Your task to perform on an android device: toggle translation in the chrome app Image 0: 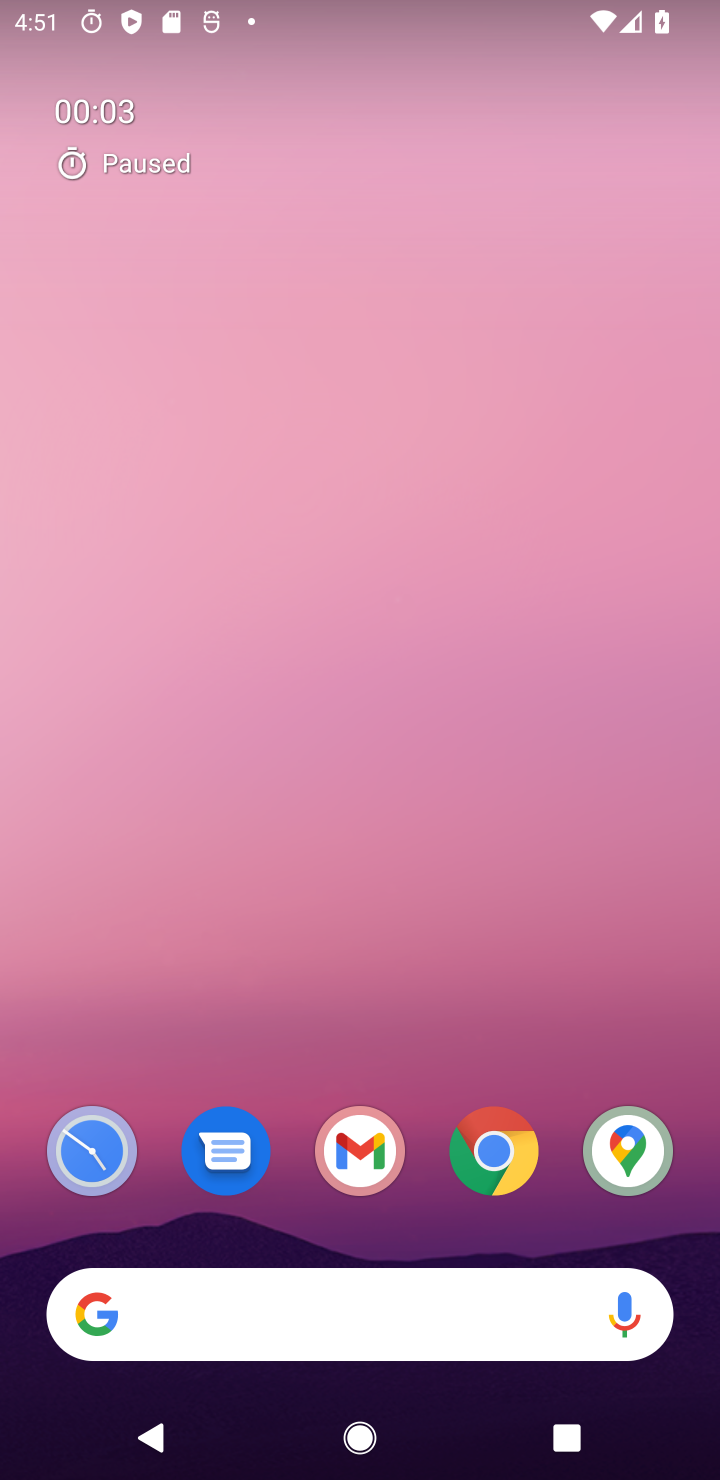
Step 0: drag from (474, 1149) to (454, 601)
Your task to perform on an android device: toggle translation in the chrome app Image 1: 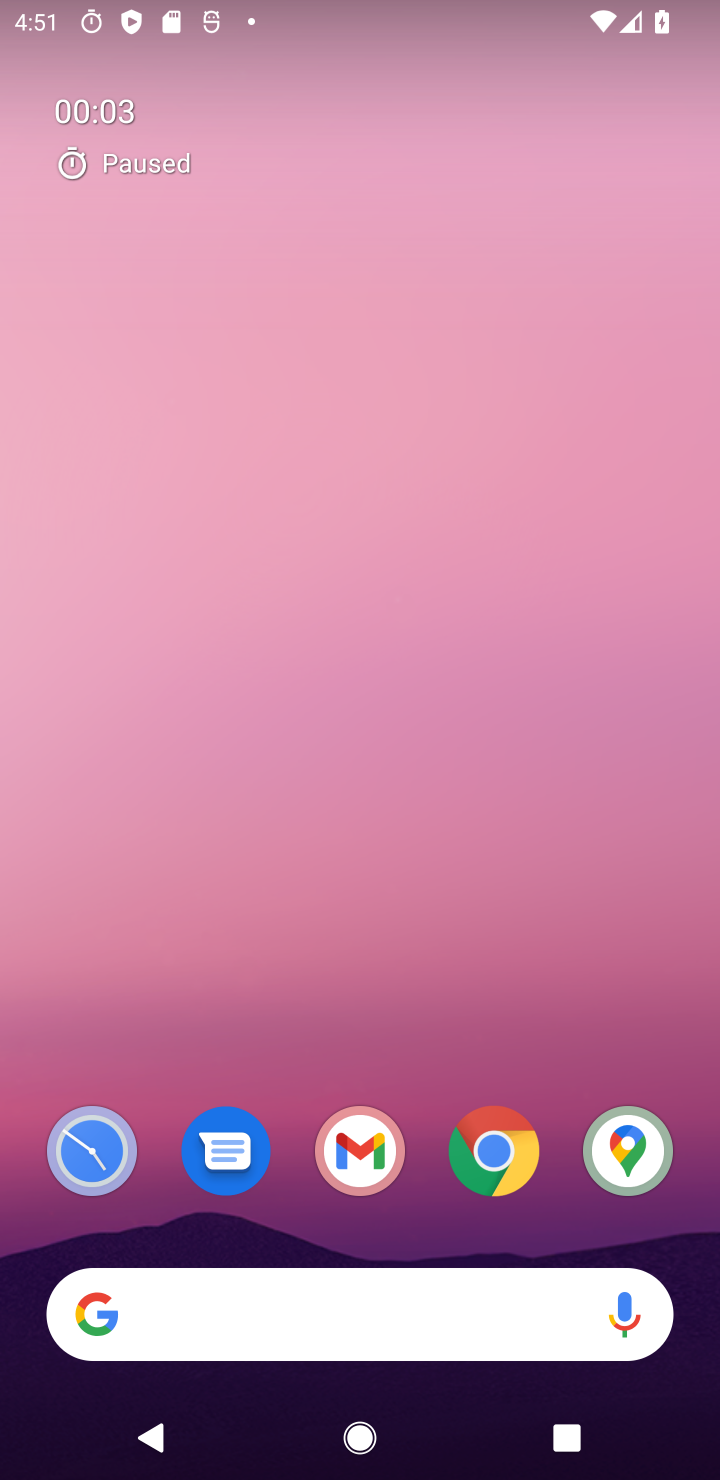
Step 1: click (266, 425)
Your task to perform on an android device: toggle translation in the chrome app Image 2: 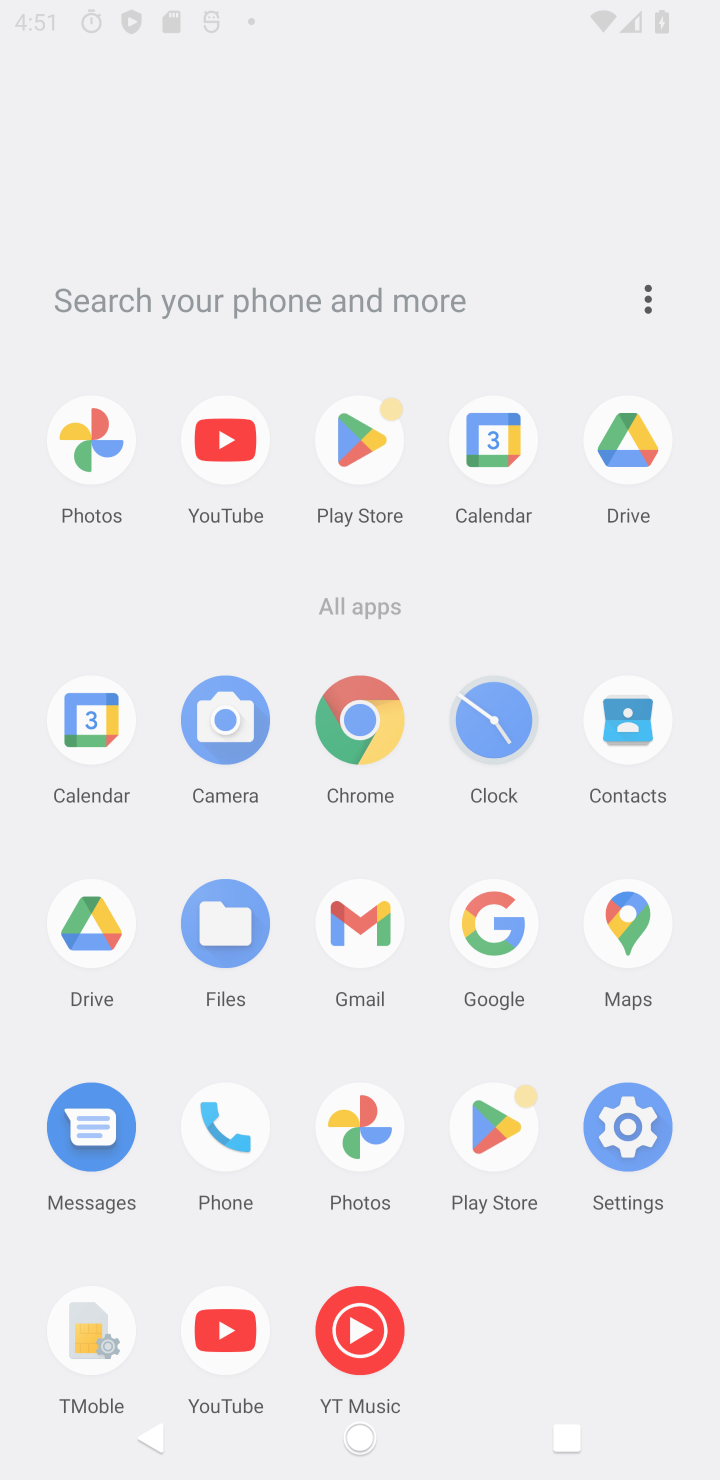
Step 2: drag from (352, 722) to (263, 305)
Your task to perform on an android device: toggle translation in the chrome app Image 3: 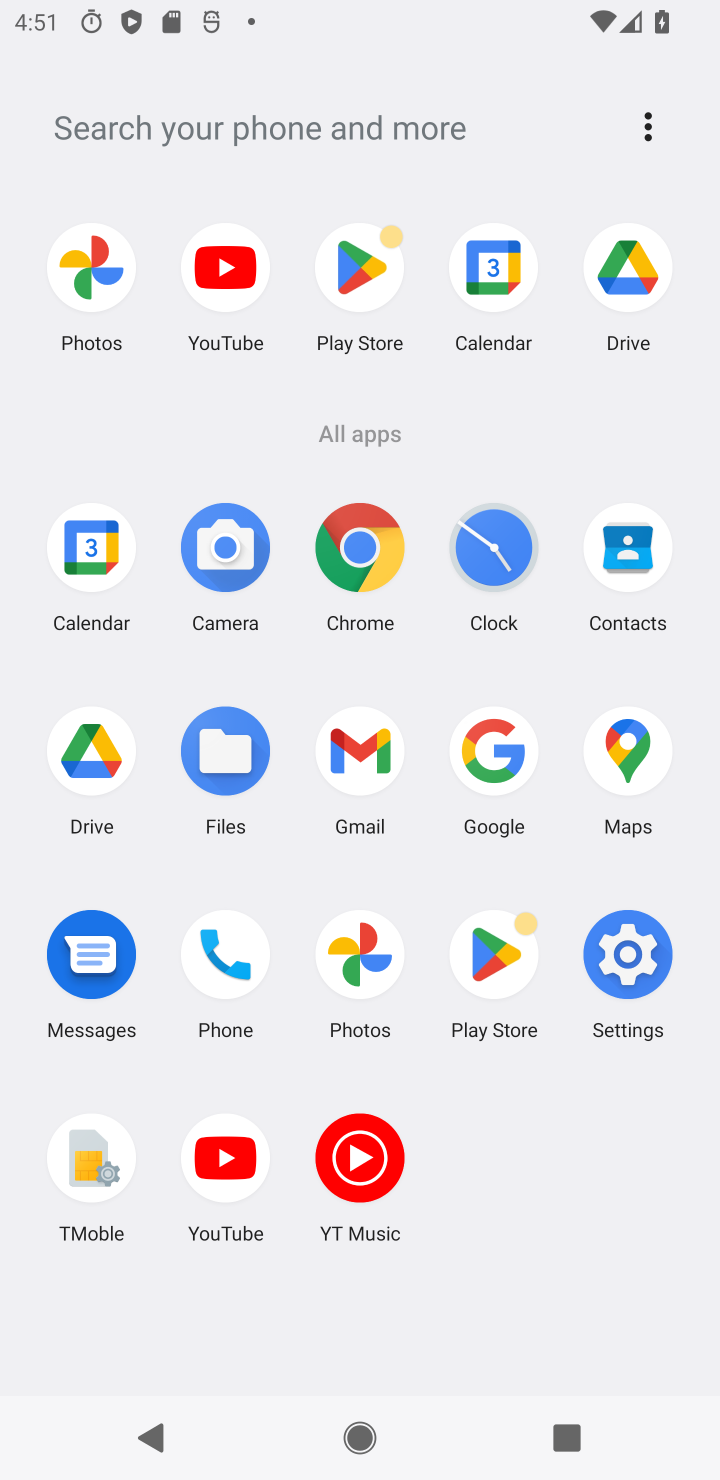
Step 3: click (336, 534)
Your task to perform on an android device: toggle translation in the chrome app Image 4: 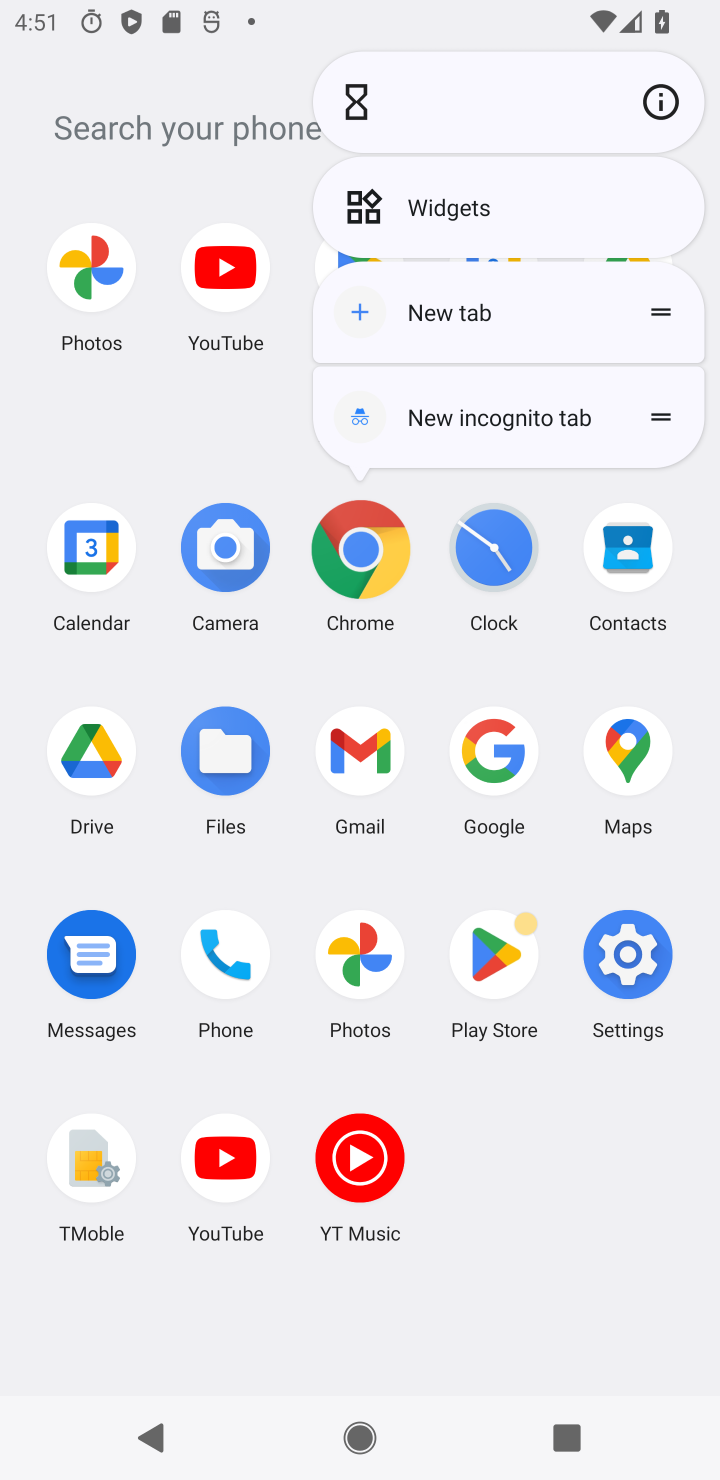
Step 4: click (355, 538)
Your task to perform on an android device: toggle translation in the chrome app Image 5: 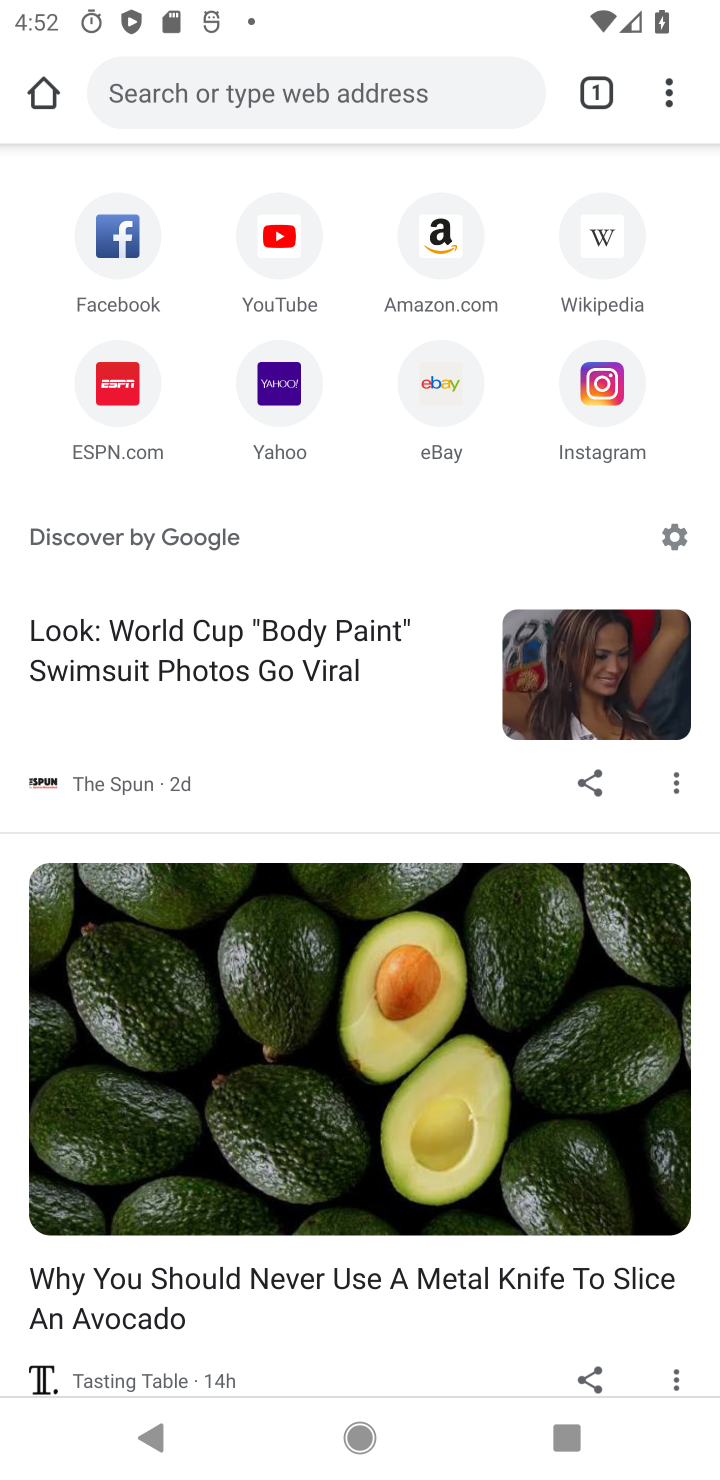
Step 5: drag from (670, 106) to (363, 842)
Your task to perform on an android device: toggle translation in the chrome app Image 6: 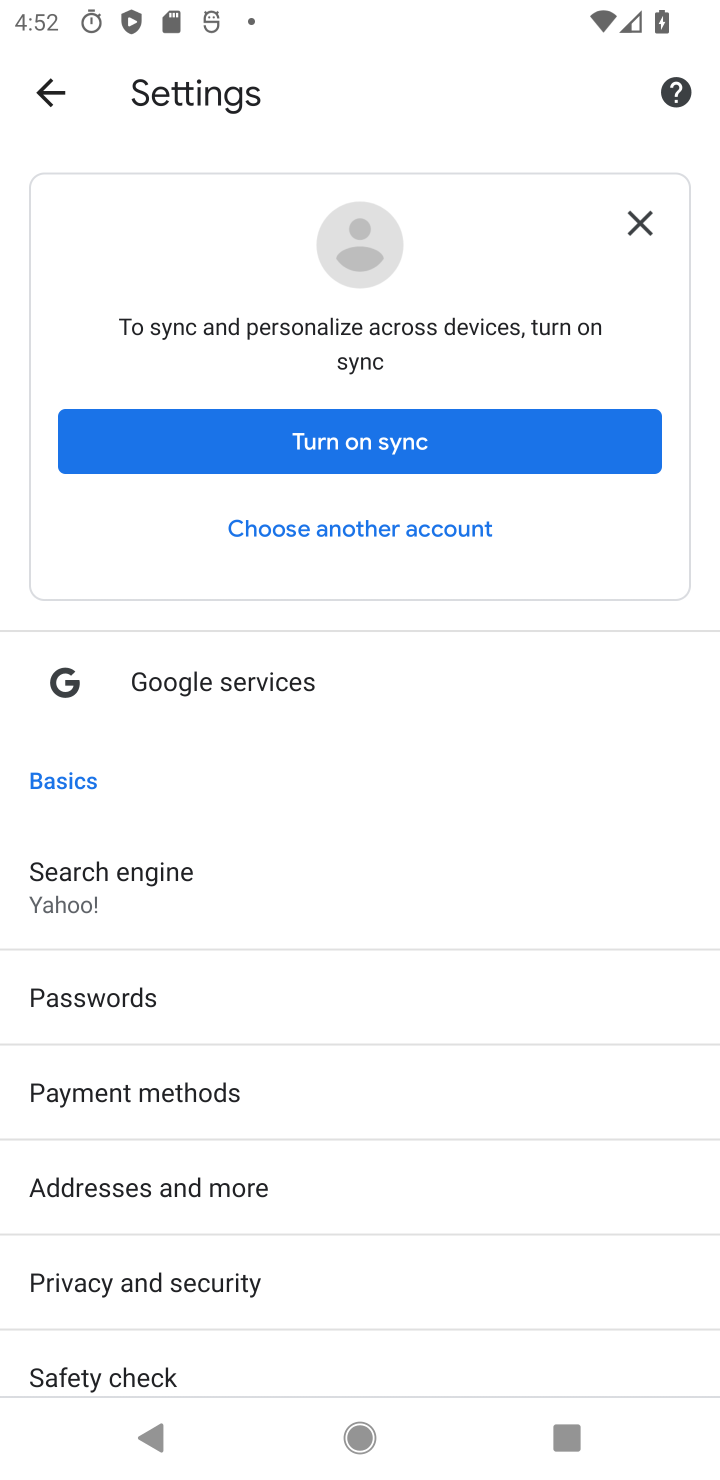
Step 6: click (618, 223)
Your task to perform on an android device: toggle translation in the chrome app Image 7: 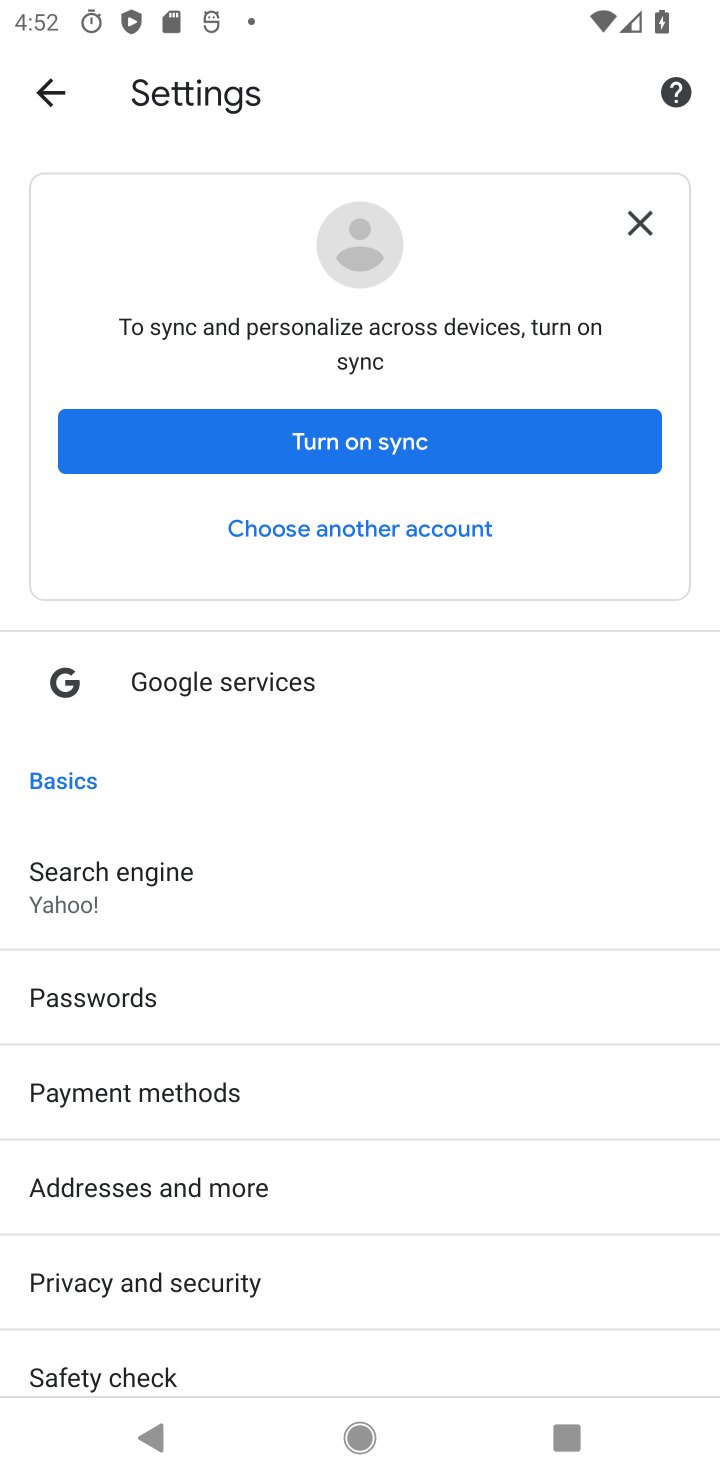
Step 7: click (629, 221)
Your task to perform on an android device: toggle translation in the chrome app Image 8: 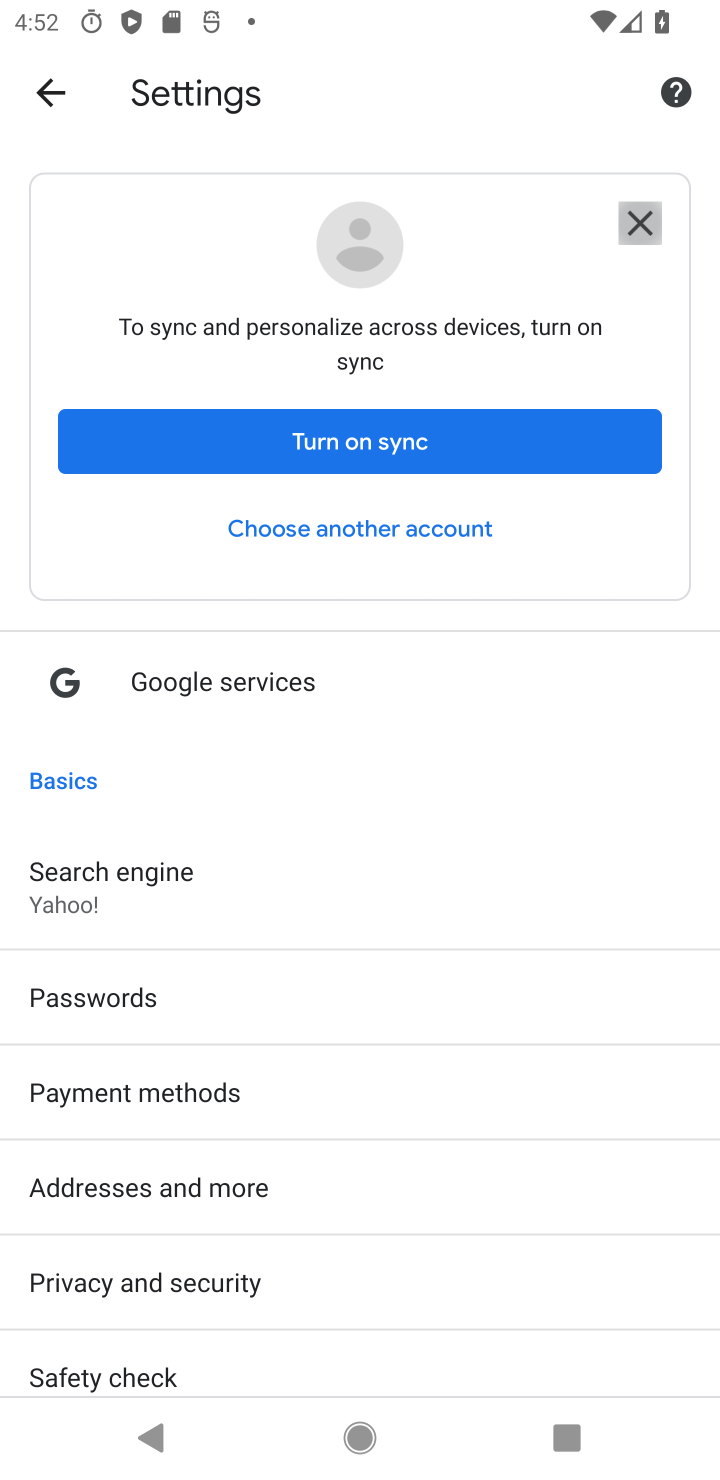
Step 8: drag from (296, 921) to (309, 223)
Your task to perform on an android device: toggle translation in the chrome app Image 9: 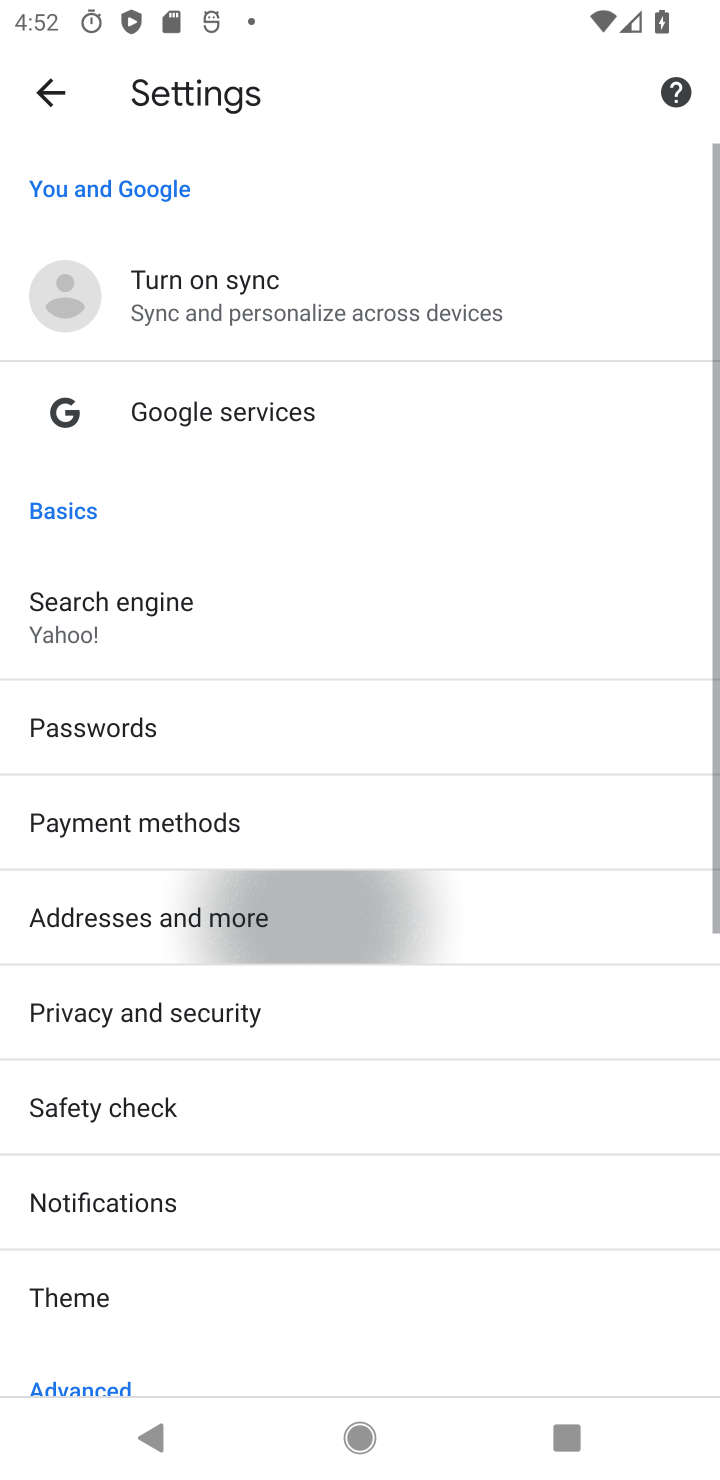
Step 9: drag from (320, 904) to (275, 367)
Your task to perform on an android device: toggle translation in the chrome app Image 10: 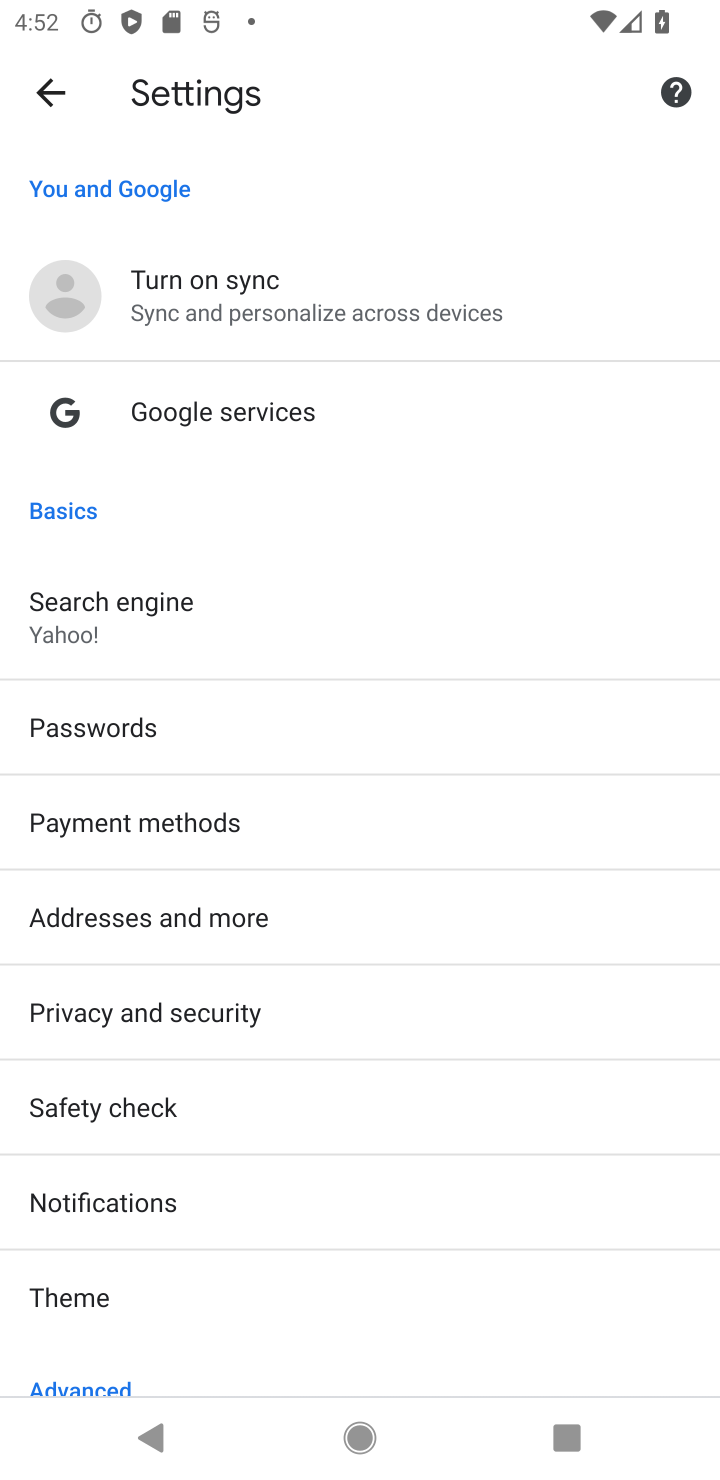
Step 10: drag from (83, 1286) to (31, 664)
Your task to perform on an android device: toggle translation in the chrome app Image 11: 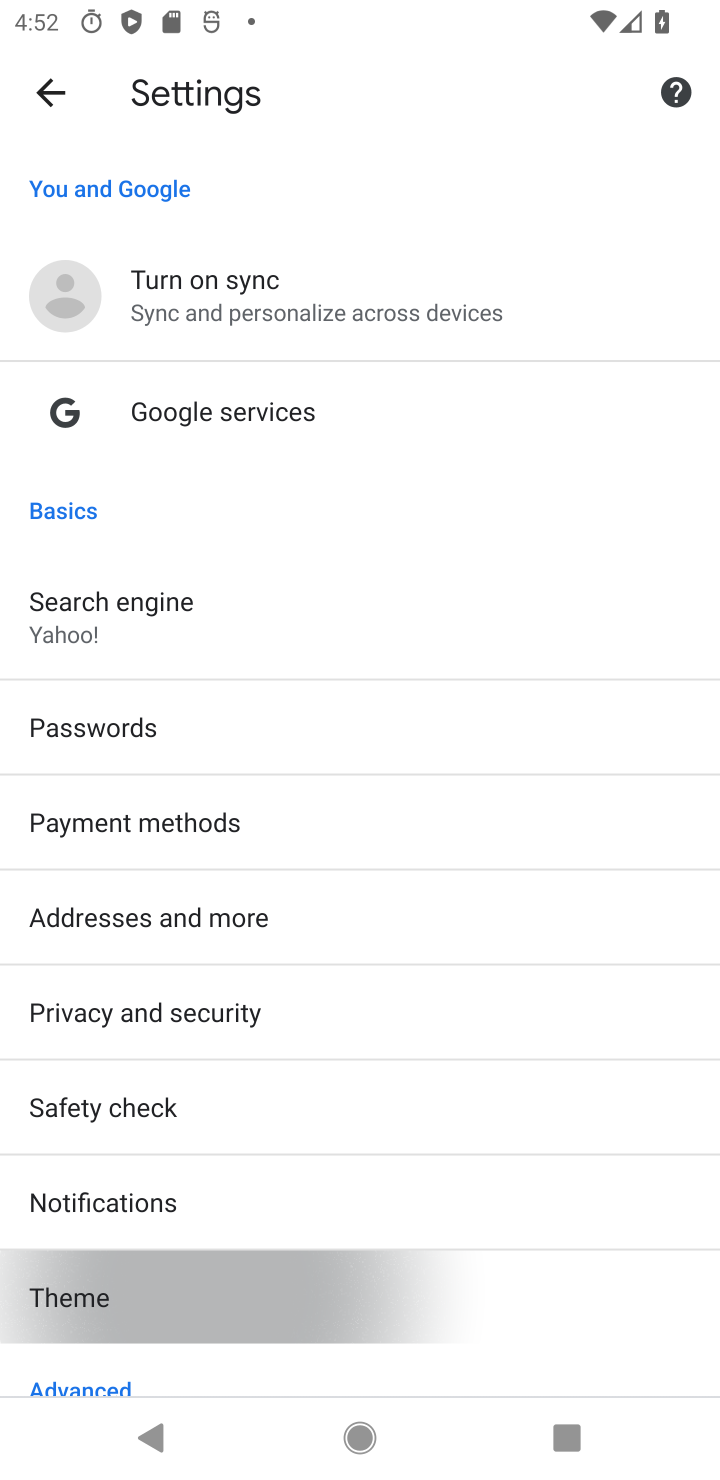
Step 11: drag from (256, 841) to (210, 547)
Your task to perform on an android device: toggle translation in the chrome app Image 12: 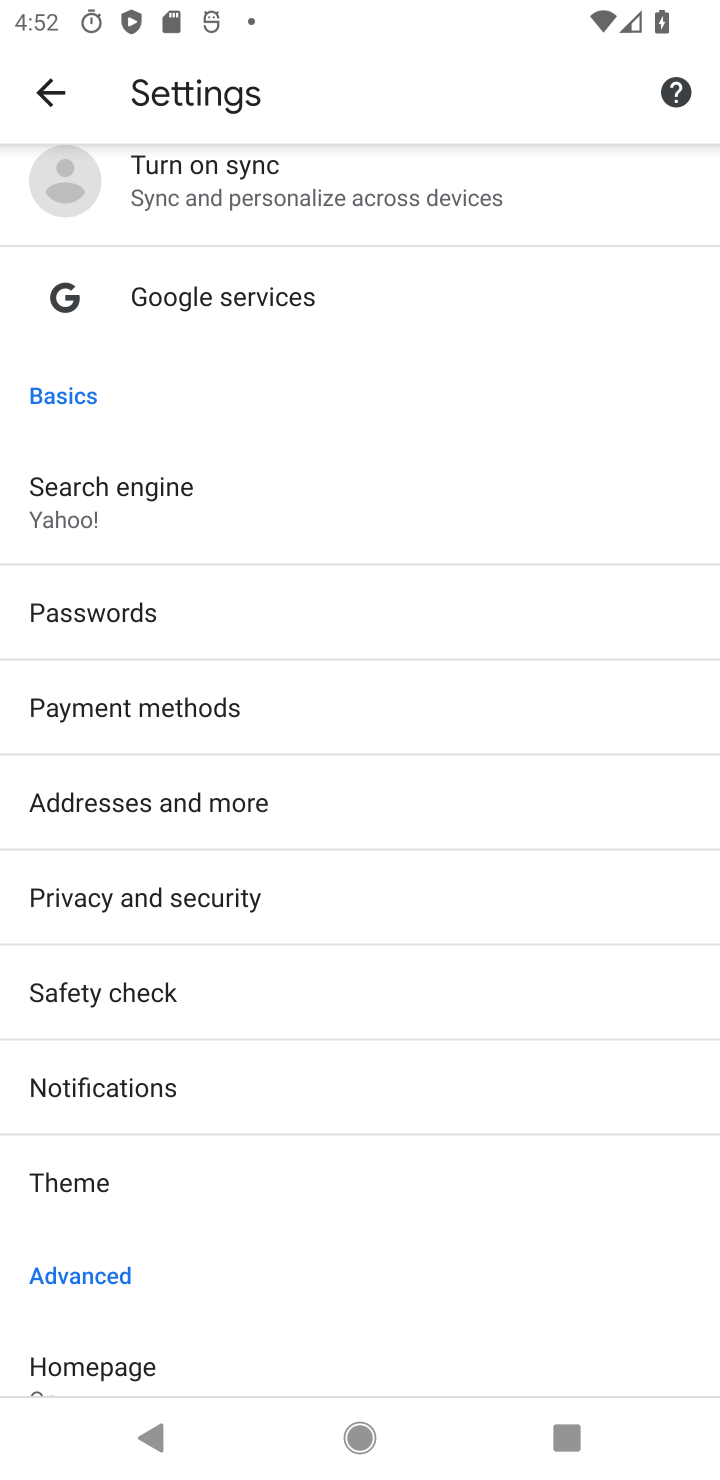
Step 12: drag from (109, 412) to (173, 930)
Your task to perform on an android device: toggle translation in the chrome app Image 13: 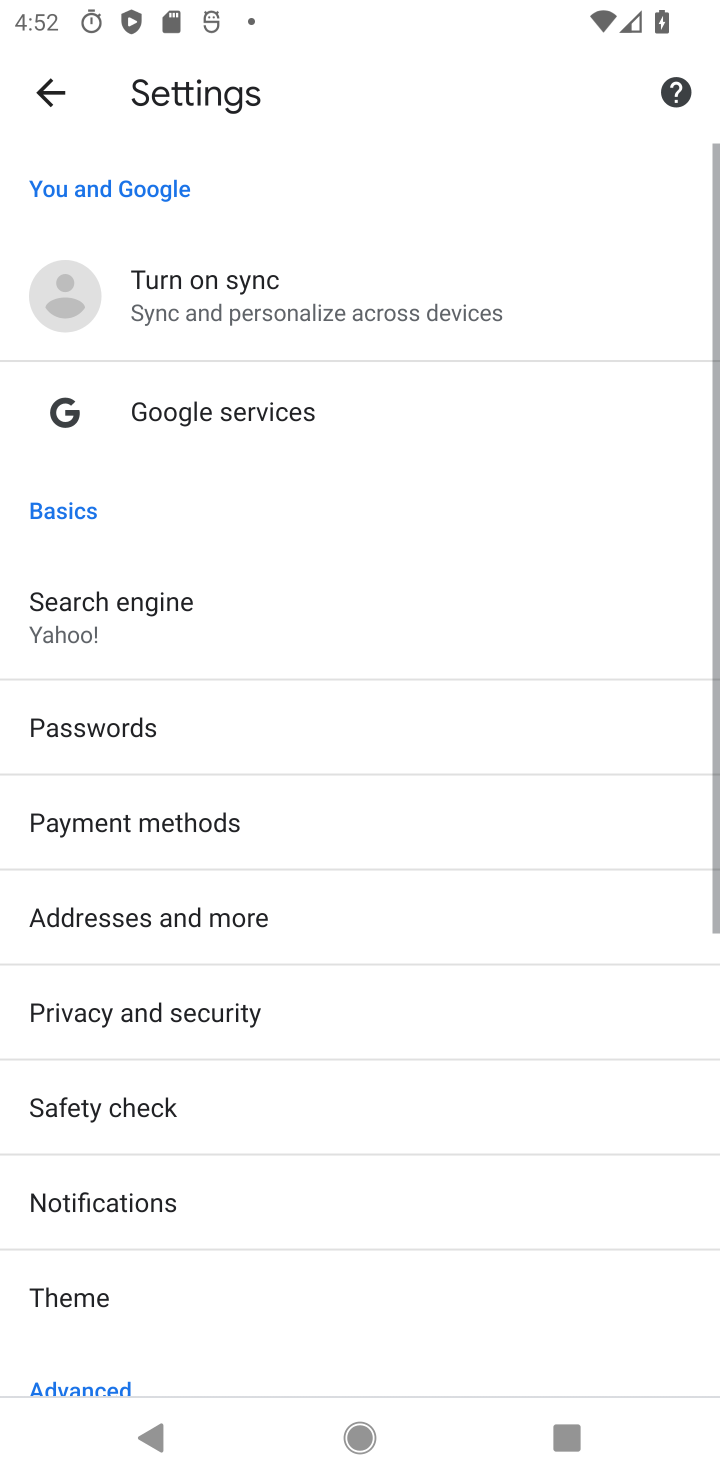
Step 13: drag from (154, 390) to (224, 881)
Your task to perform on an android device: toggle translation in the chrome app Image 14: 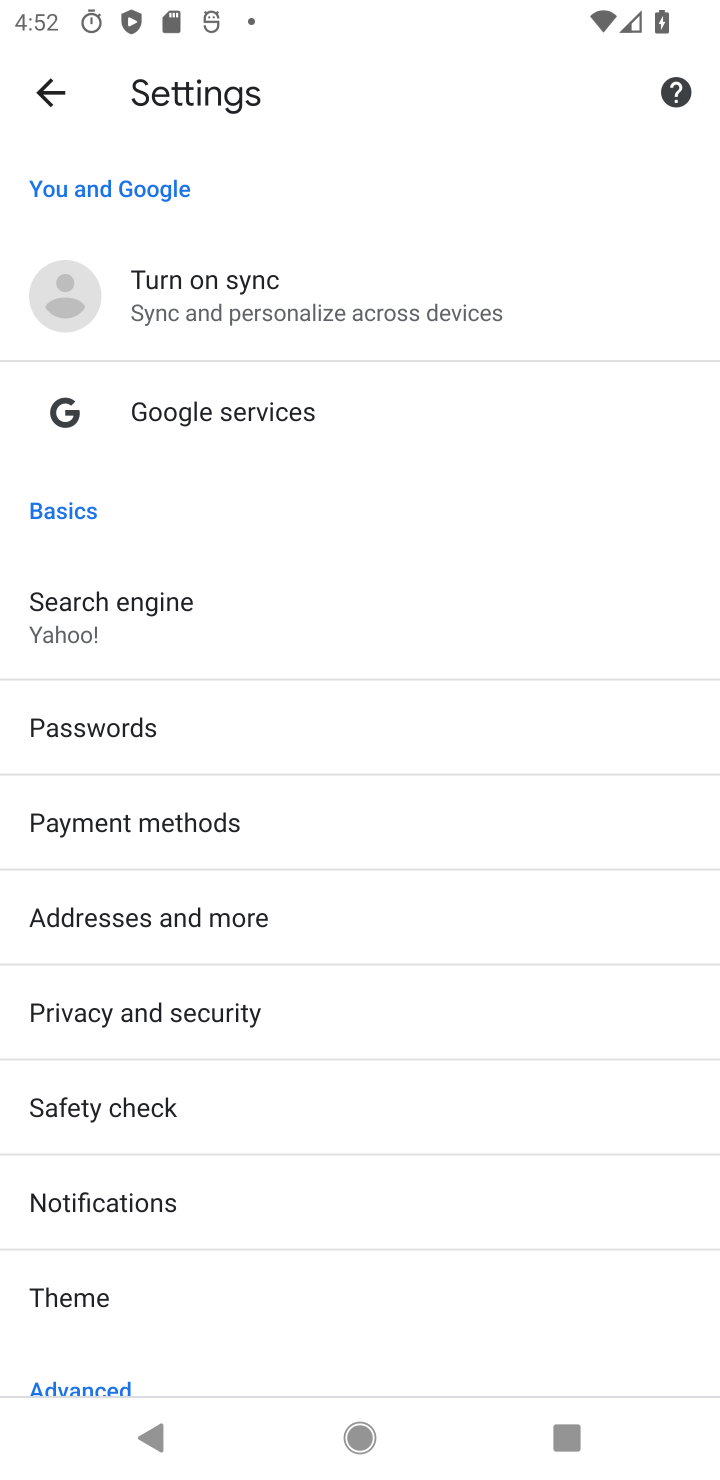
Step 14: drag from (181, 1307) to (176, 437)
Your task to perform on an android device: toggle translation in the chrome app Image 15: 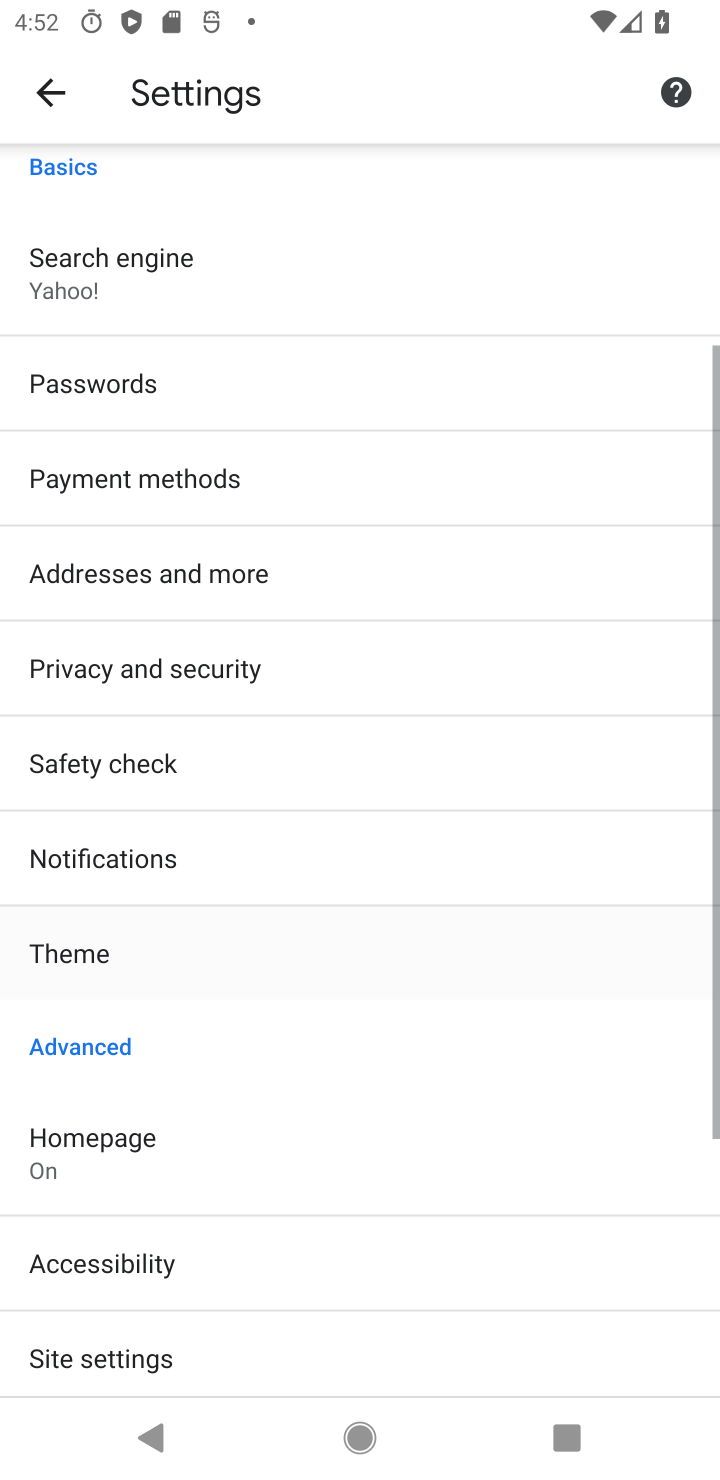
Step 15: drag from (197, 847) to (105, 424)
Your task to perform on an android device: toggle translation in the chrome app Image 16: 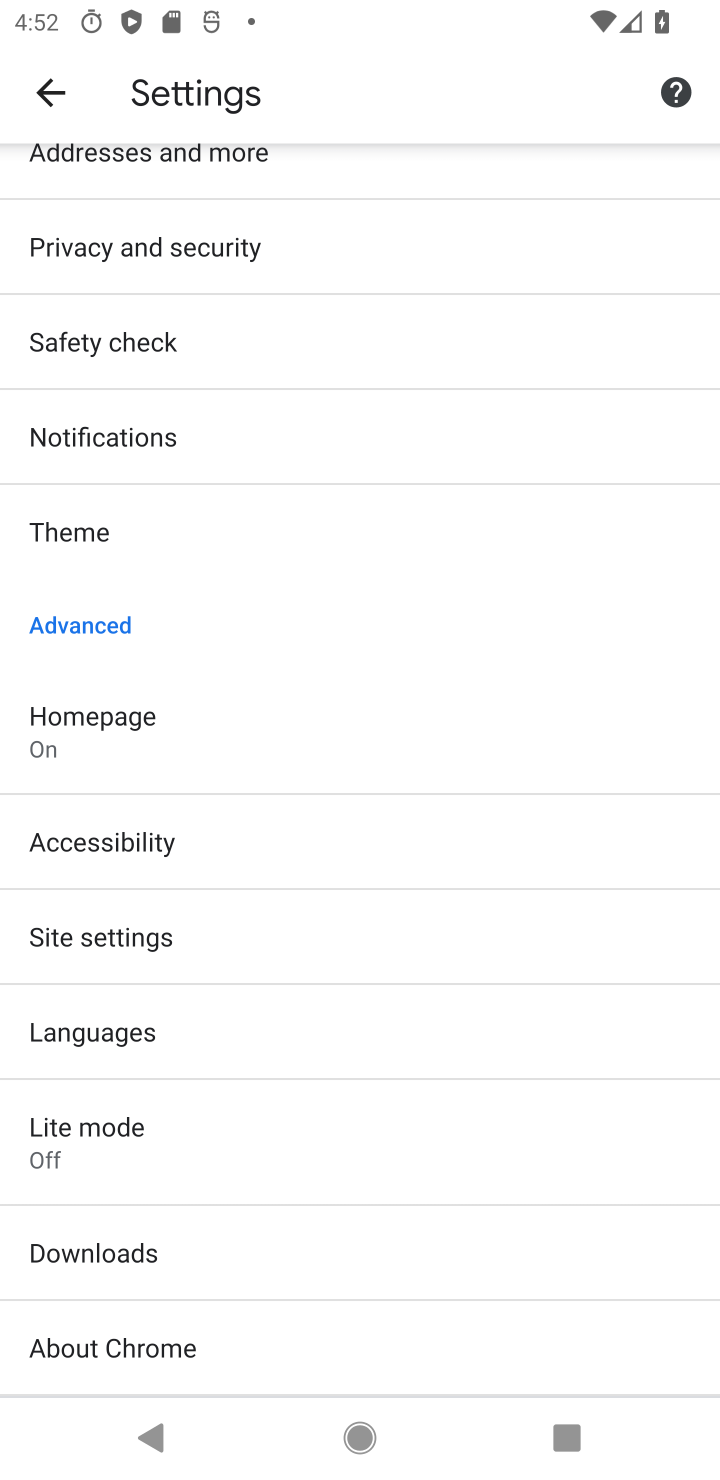
Step 16: click (85, 1012)
Your task to perform on an android device: toggle translation in the chrome app Image 17: 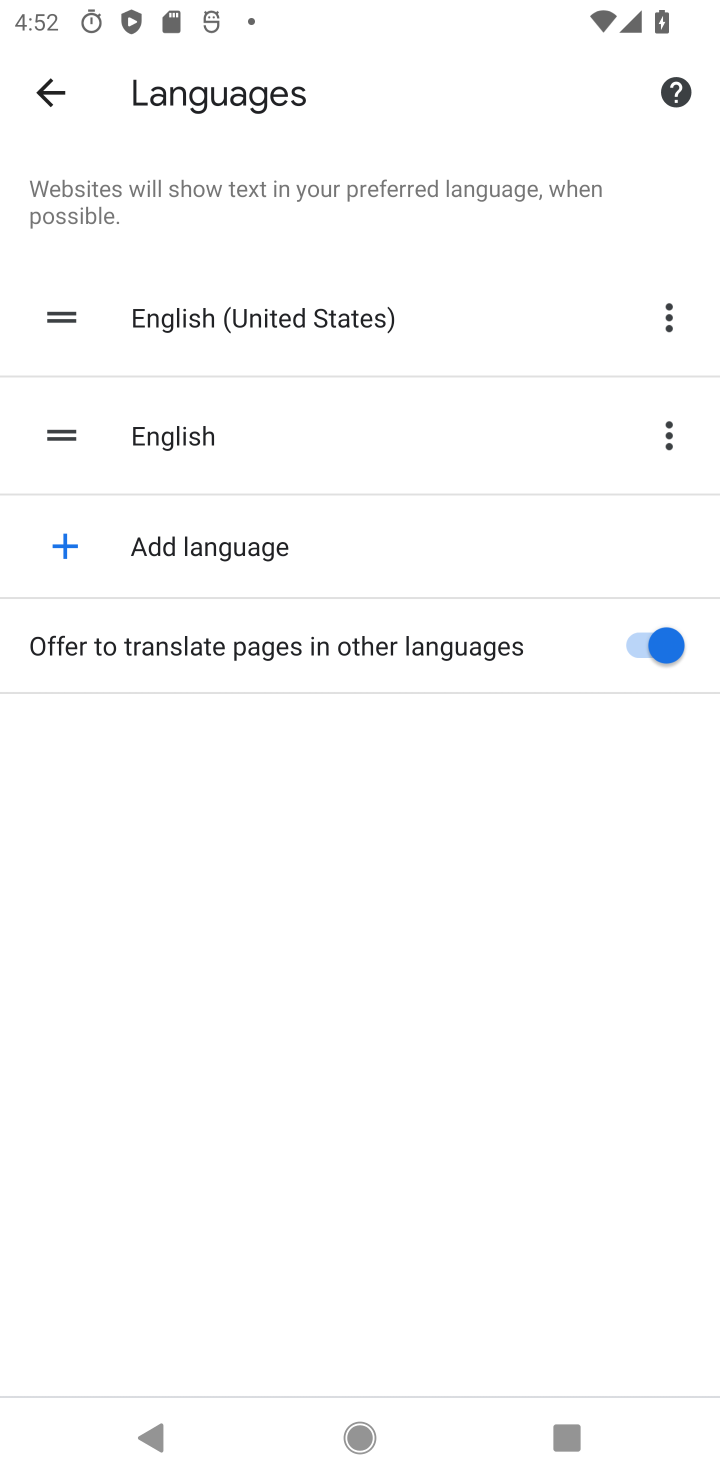
Step 17: click (662, 637)
Your task to perform on an android device: toggle translation in the chrome app Image 18: 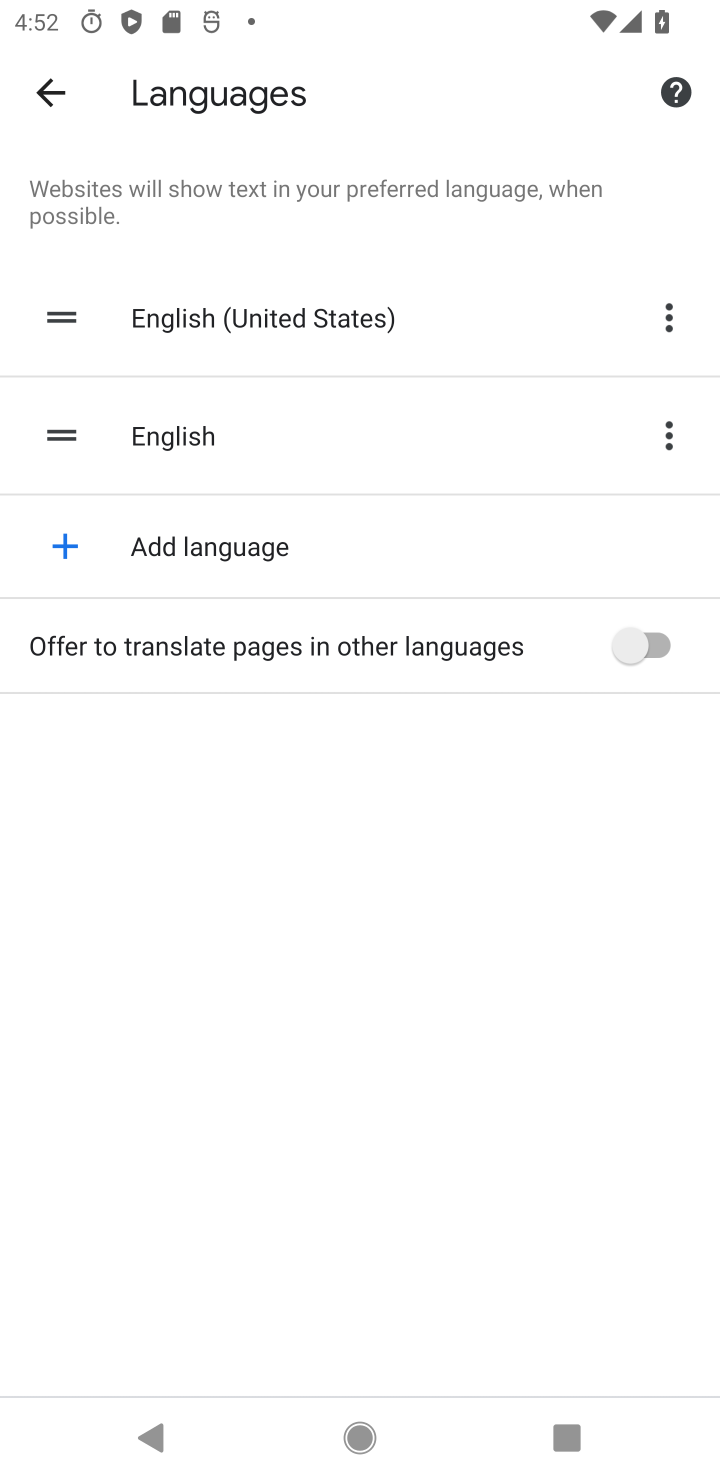
Step 18: task complete